Your task to perform on an android device: turn notification dots on Image 0: 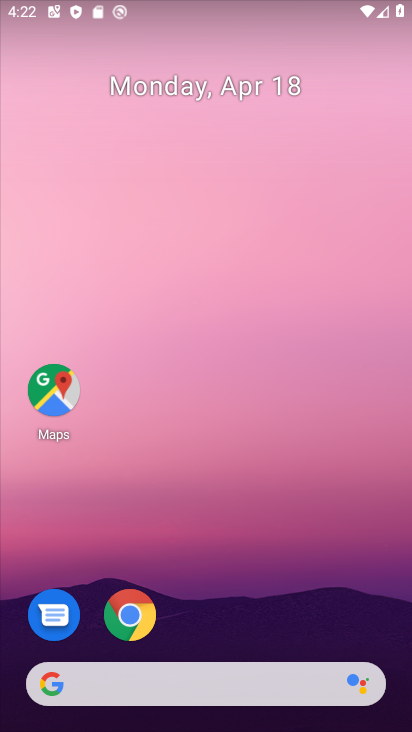
Step 0: drag from (277, 537) to (209, 37)
Your task to perform on an android device: turn notification dots on Image 1: 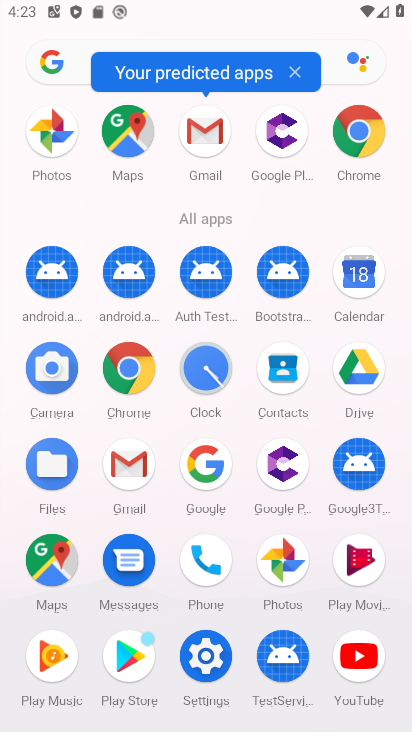
Step 1: click (214, 653)
Your task to perform on an android device: turn notification dots on Image 2: 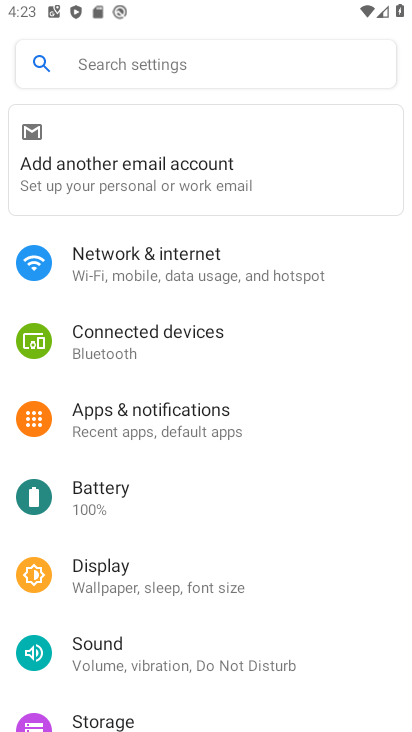
Step 2: click (143, 409)
Your task to perform on an android device: turn notification dots on Image 3: 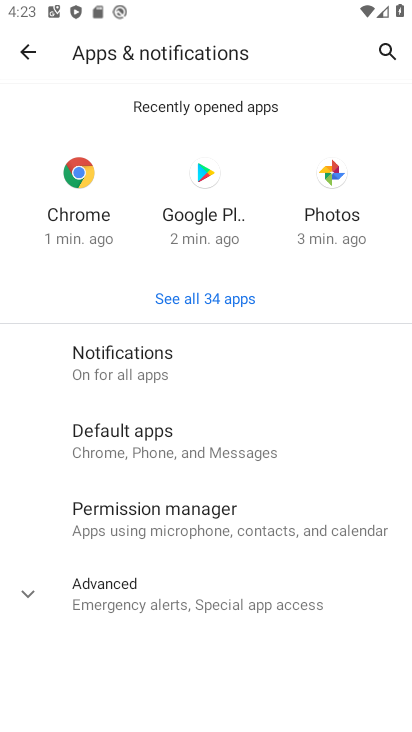
Step 3: click (164, 350)
Your task to perform on an android device: turn notification dots on Image 4: 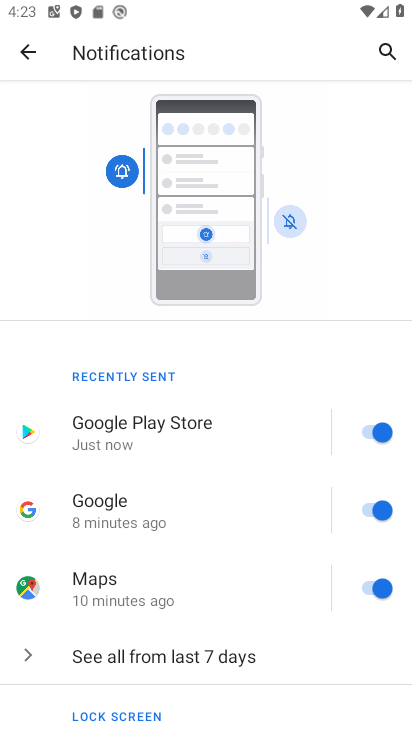
Step 4: drag from (182, 677) to (148, 246)
Your task to perform on an android device: turn notification dots on Image 5: 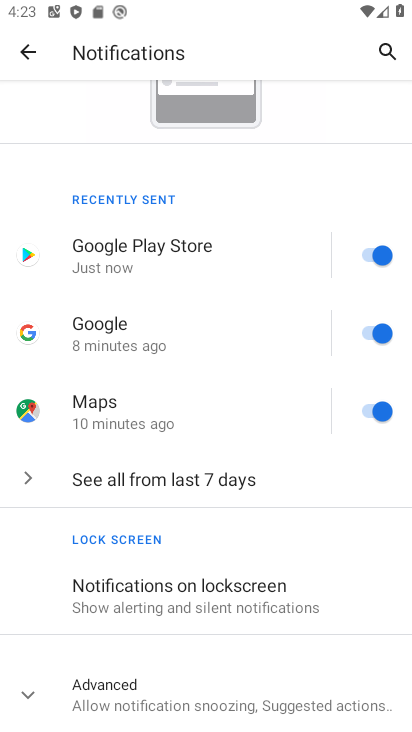
Step 5: click (181, 683)
Your task to perform on an android device: turn notification dots on Image 6: 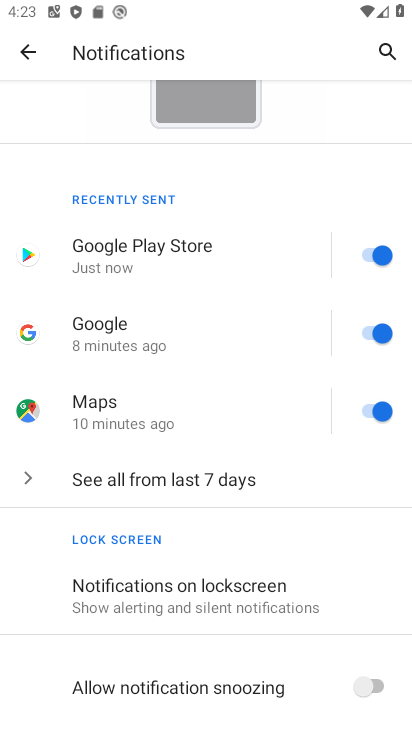
Step 6: task complete